Your task to perform on an android device: Go to ESPN.com Image 0: 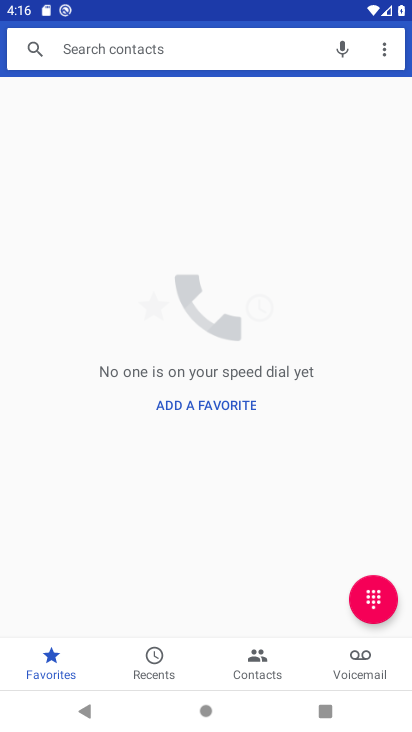
Step 0: press home button
Your task to perform on an android device: Go to ESPN.com Image 1: 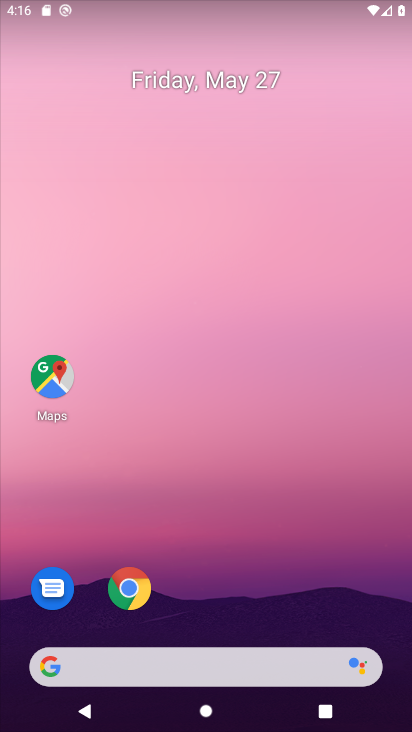
Step 1: click (106, 590)
Your task to perform on an android device: Go to ESPN.com Image 2: 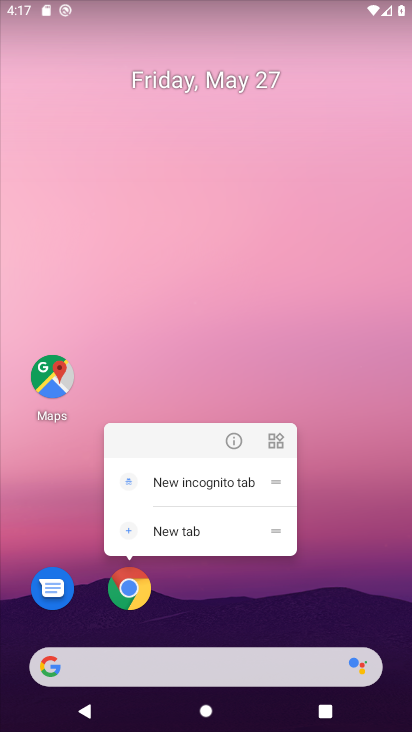
Step 2: click (133, 596)
Your task to perform on an android device: Go to ESPN.com Image 3: 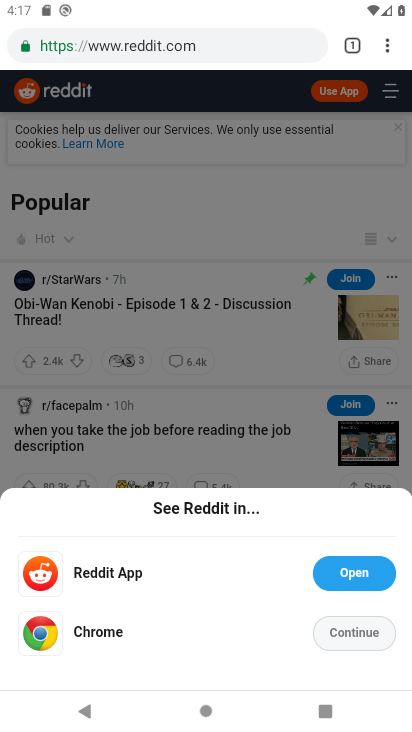
Step 3: click (357, 44)
Your task to perform on an android device: Go to ESPN.com Image 4: 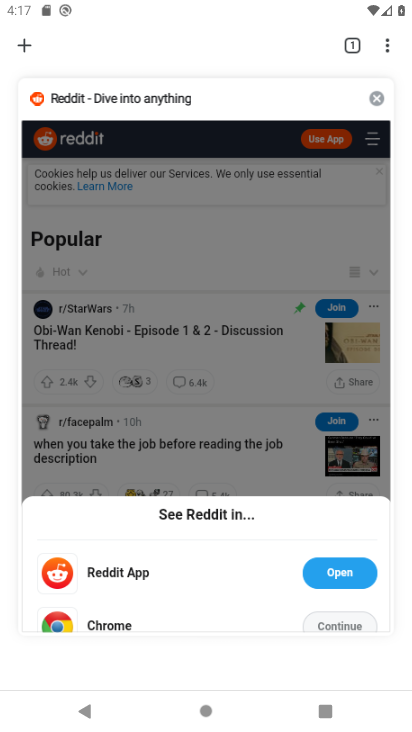
Step 4: click (374, 100)
Your task to perform on an android device: Go to ESPN.com Image 5: 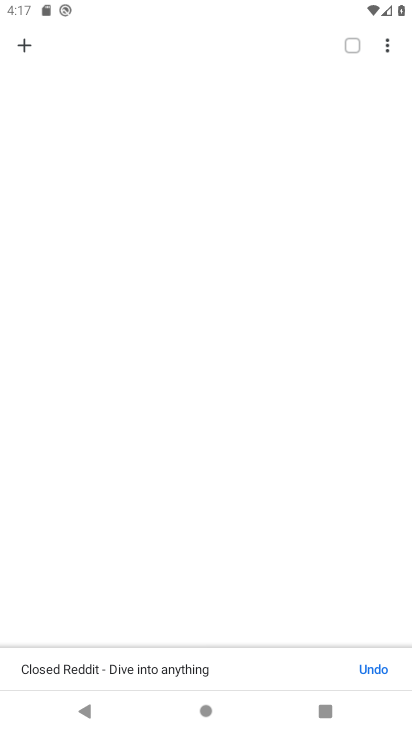
Step 5: click (24, 50)
Your task to perform on an android device: Go to ESPN.com Image 6: 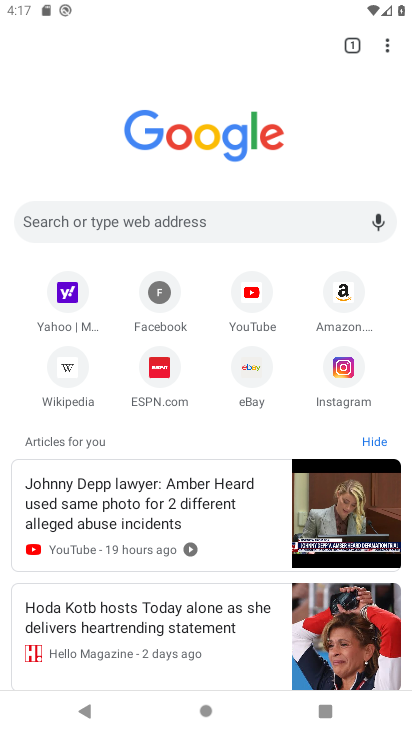
Step 6: click (157, 379)
Your task to perform on an android device: Go to ESPN.com Image 7: 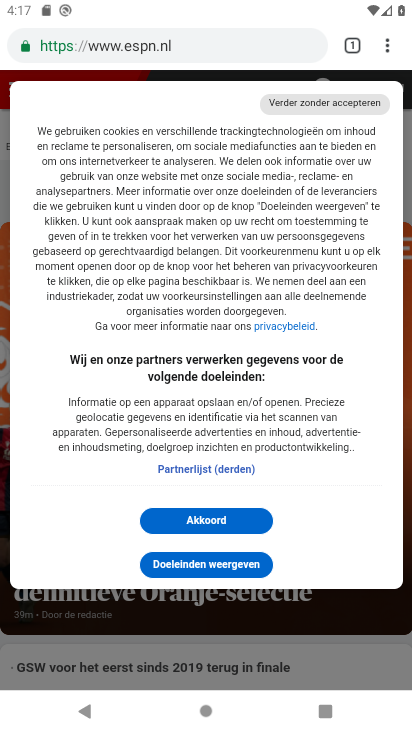
Step 7: task complete